Your task to perform on an android device: install app "Duolingo: language lessons" Image 0: 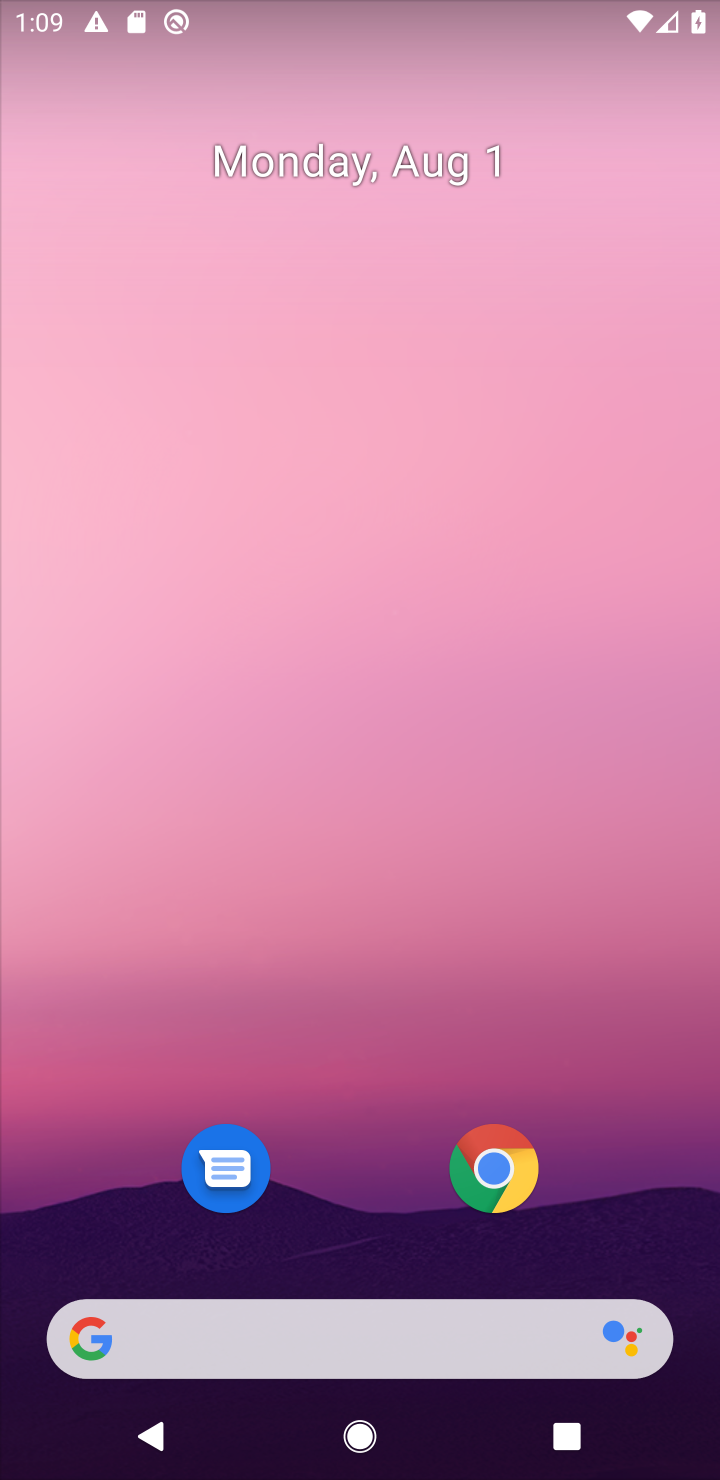
Step 0: click (611, 81)
Your task to perform on an android device: install app "Duolingo: language lessons" Image 1: 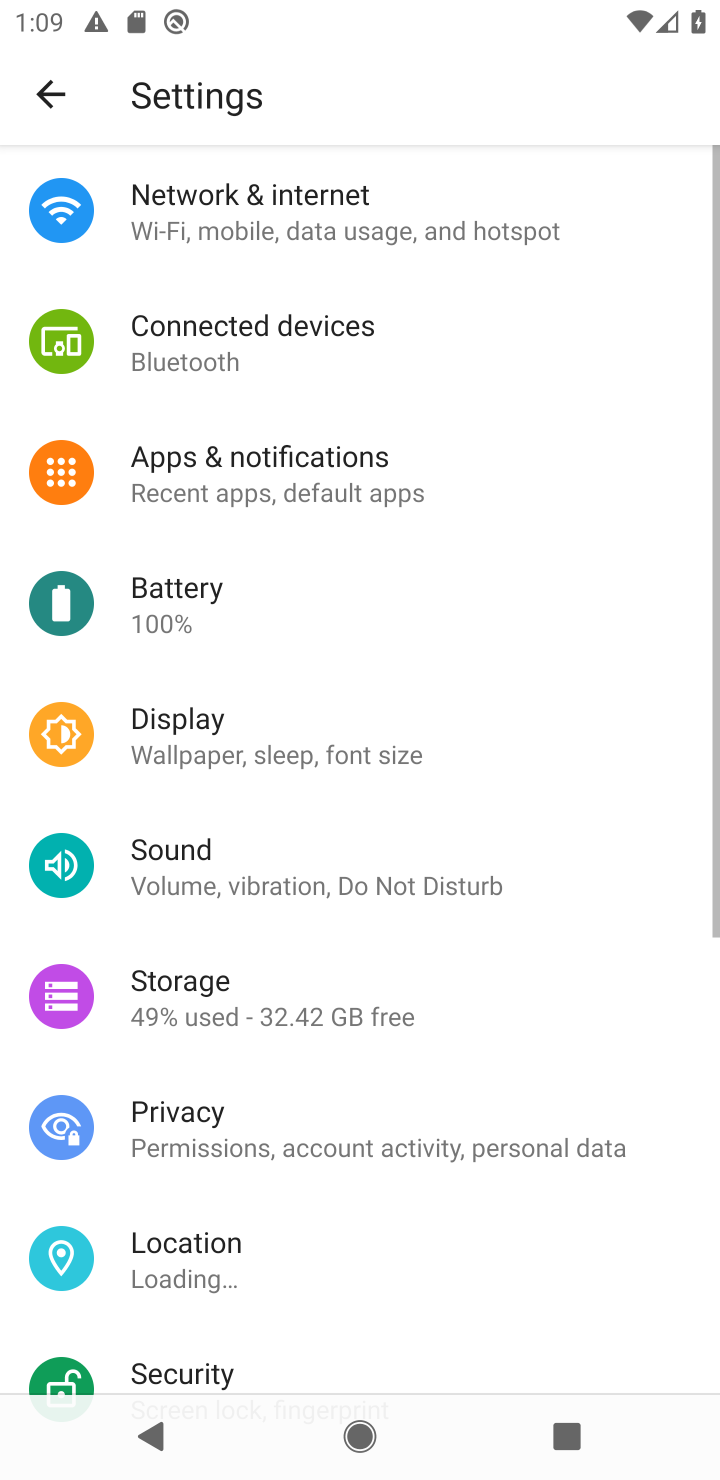
Step 1: press home button
Your task to perform on an android device: install app "Duolingo: language lessons" Image 2: 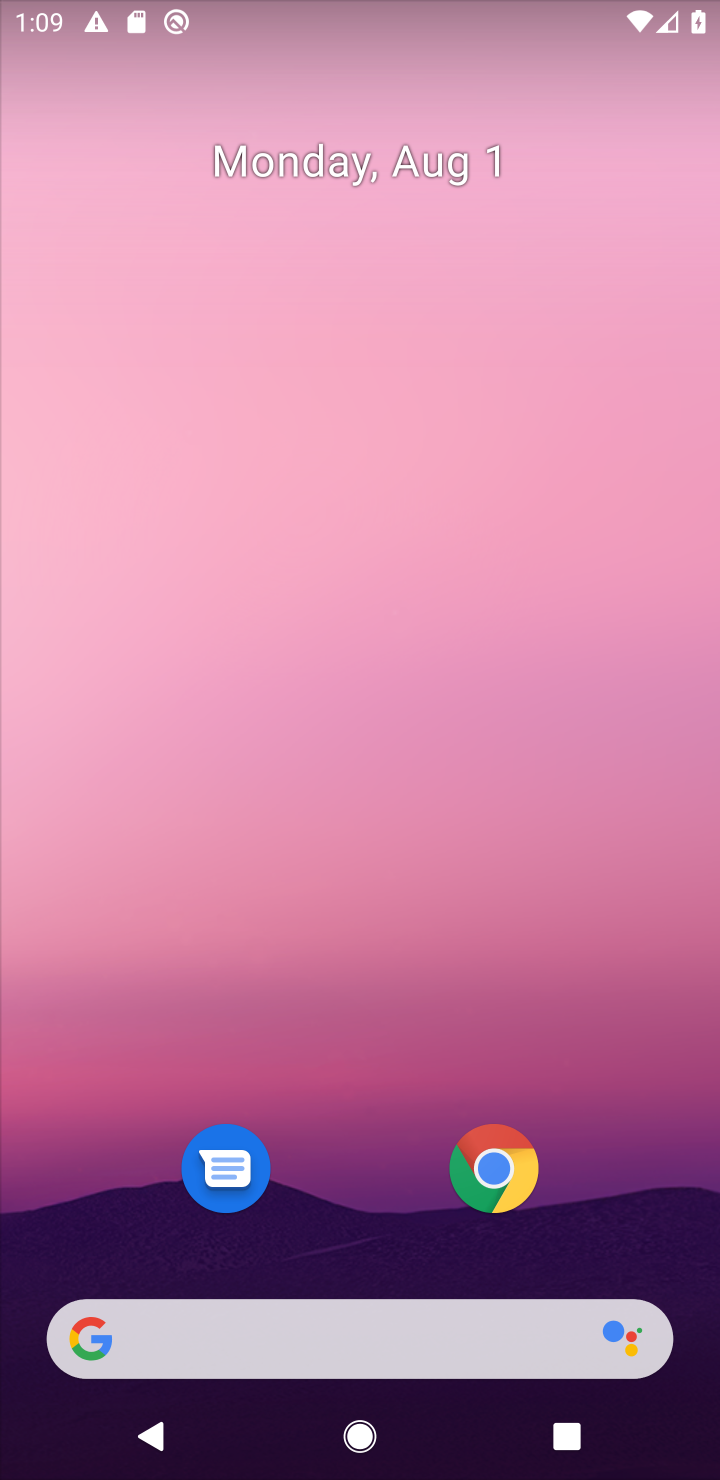
Step 2: drag from (380, 1186) to (676, 5)
Your task to perform on an android device: install app "Duolingo: language lessons" Image 3: 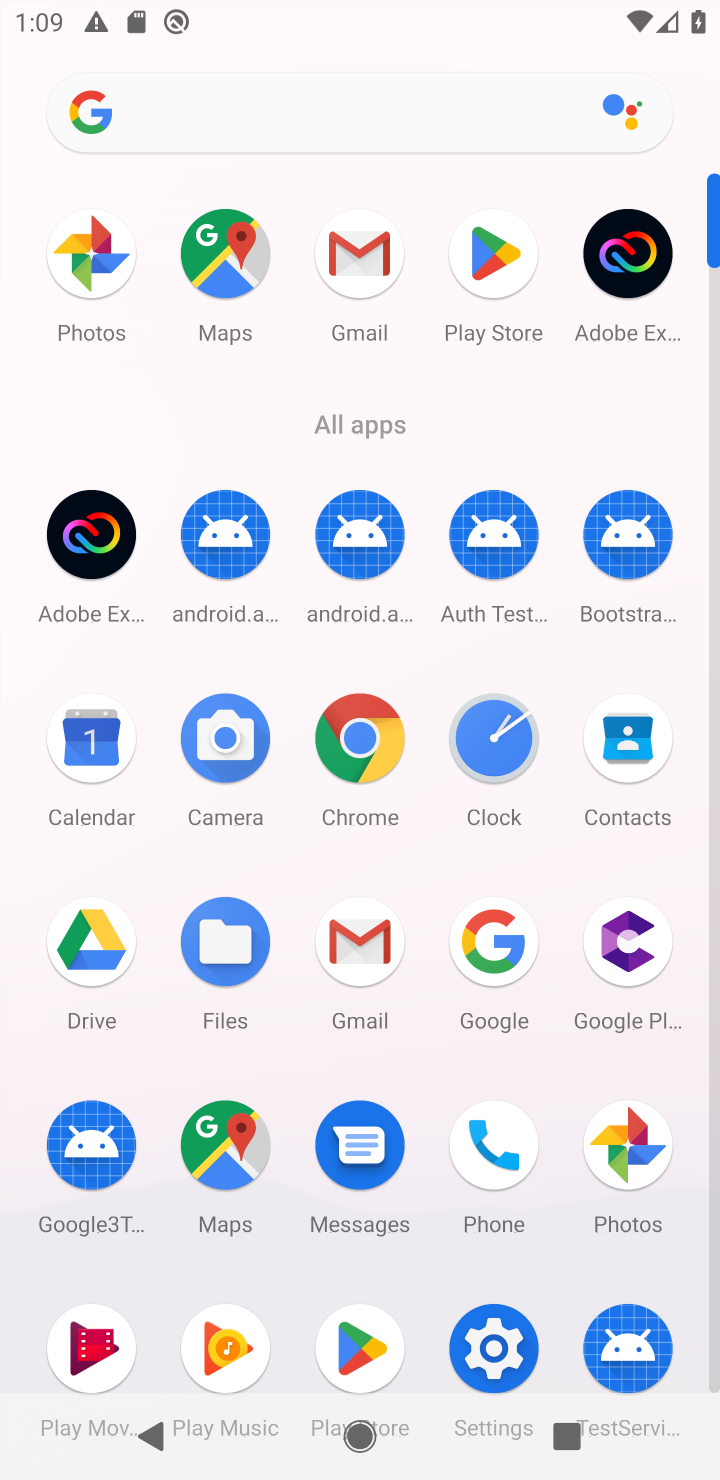
Step 3: click (502, 241)
Your task to perform on an android device: install app "Duolingo: language lessons" Image 4: 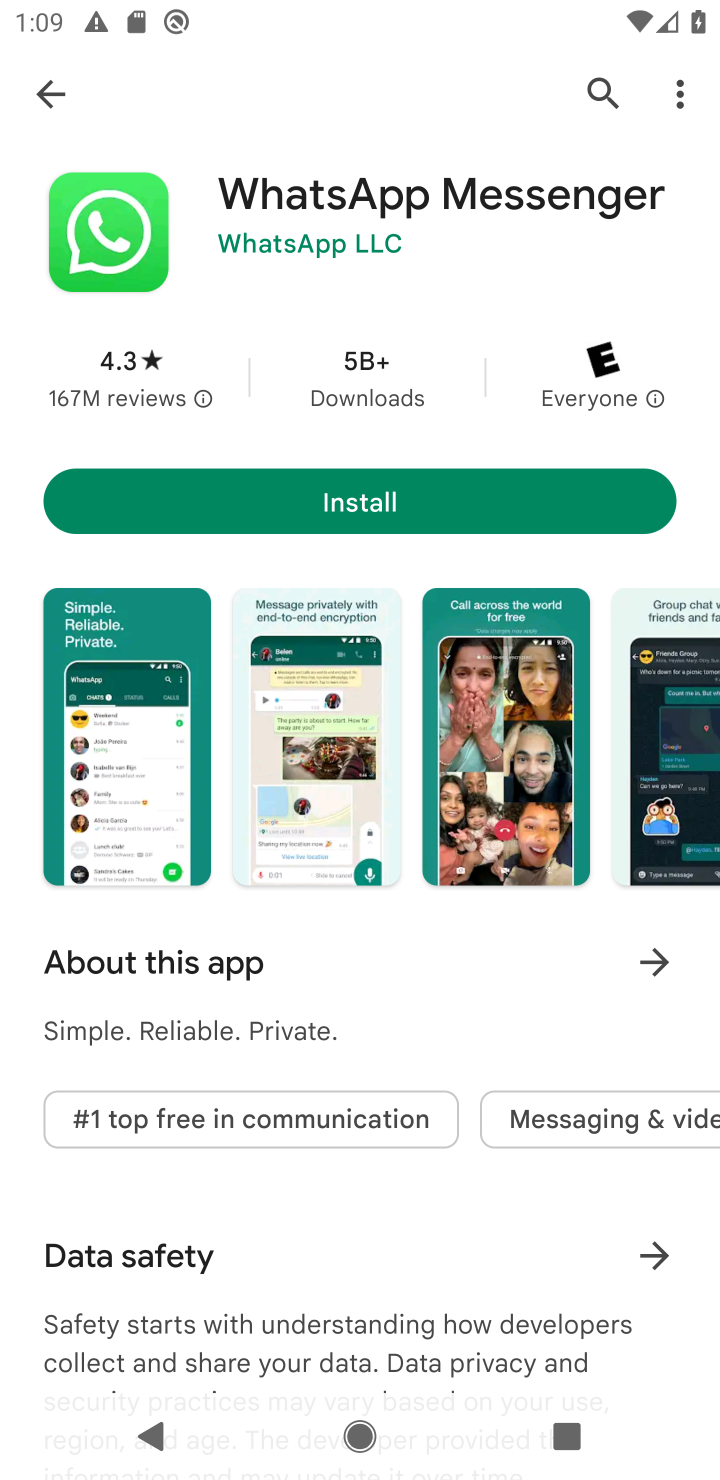
Step 4: click (600, 96)
Your task to perform on an android device: install app "Duolingo: language lessons" Image 5: 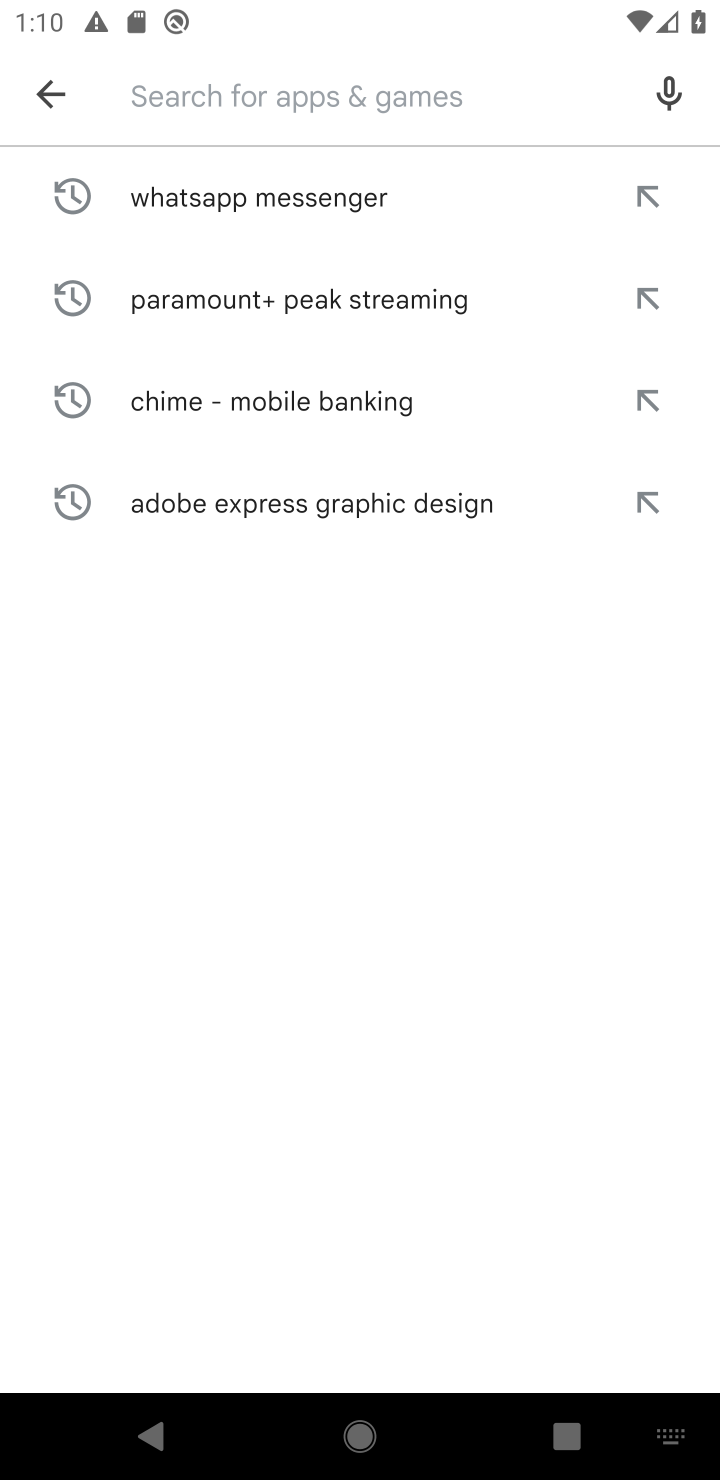
Step 5: type "duolingo: language lessons"
Your task to perform on an android device: install app "Duolingo: language lessons" Image 6: 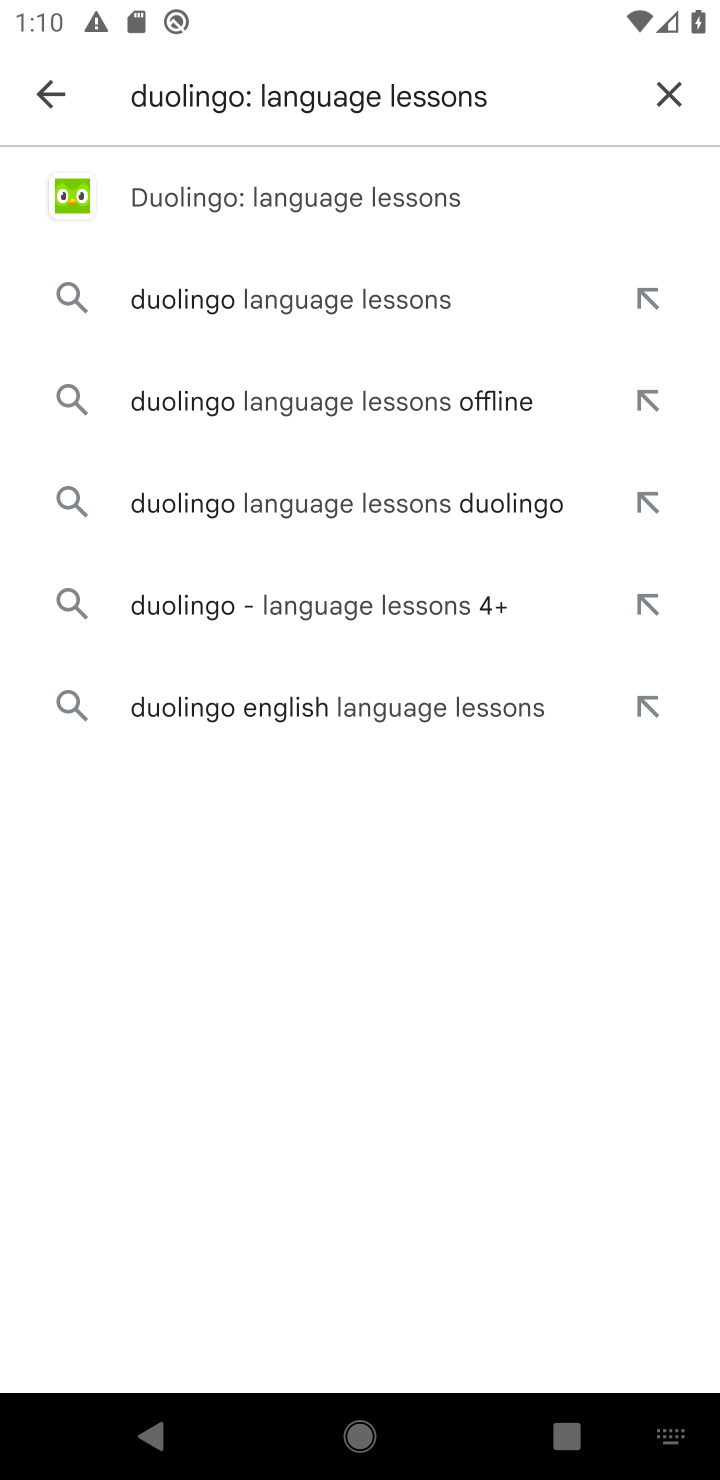
Step 6: click (395, 197)
Your task to perform on an android device: install app "Duolingo: language lessons" Image 7: 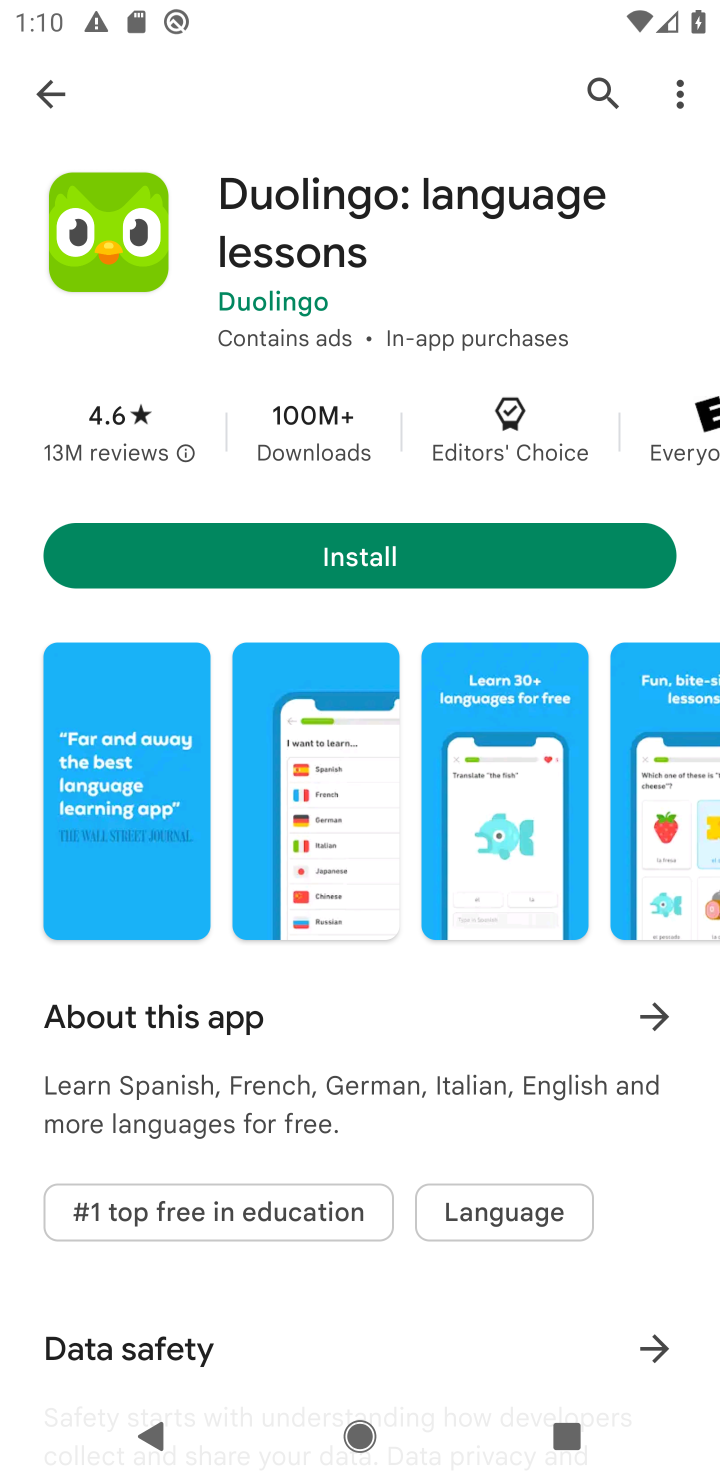
Step 7: click (422, 561)
Your task to perform on an android device: install app "Duolingo: language lessons" Image 8: 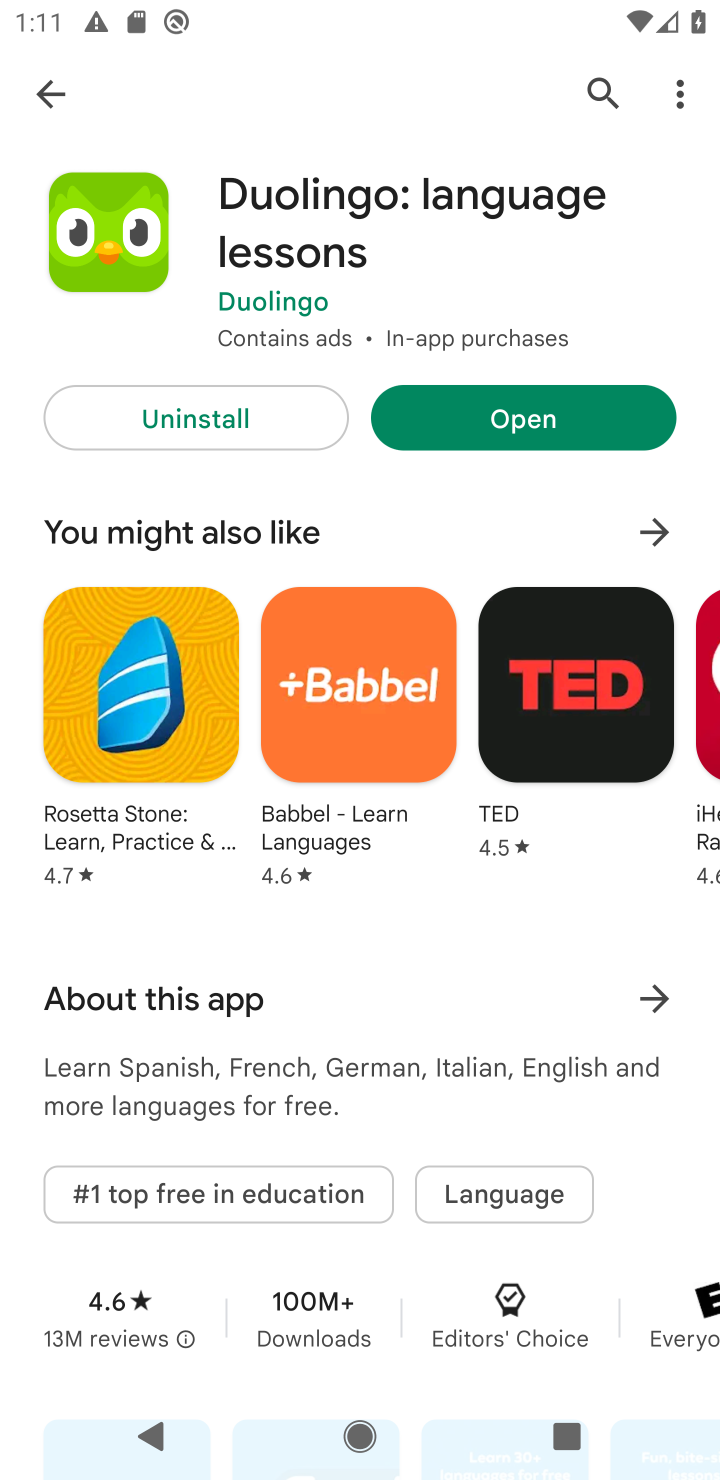
Step 8: task complete